Your task to perform on an android device: move an email to a new category in the gmail app Image 0: 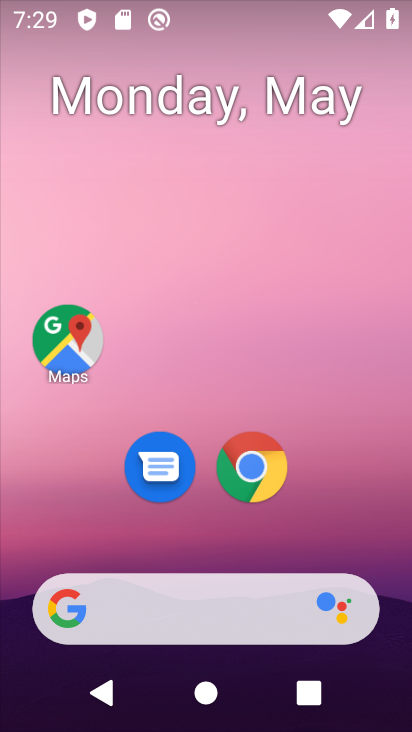
Step 0: drag from (71, 566) to (234, 37)
Your task to perform on an android device: move an email to a new category in the gmail app Image 1: 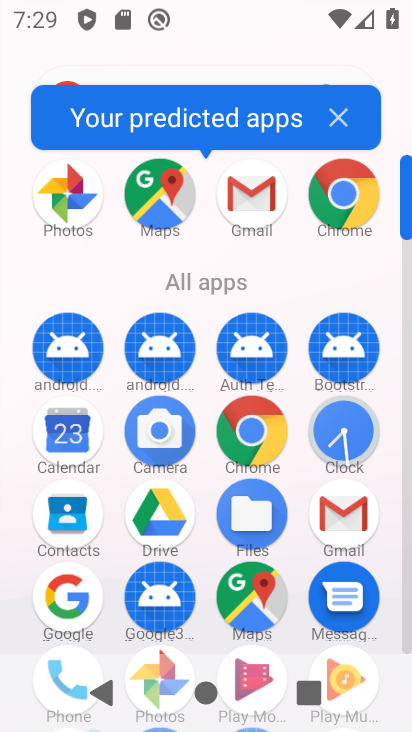
Step 1: click (339, 504)
Your task to perform on an android device: move an email to a new category in the gmail app Image 2: 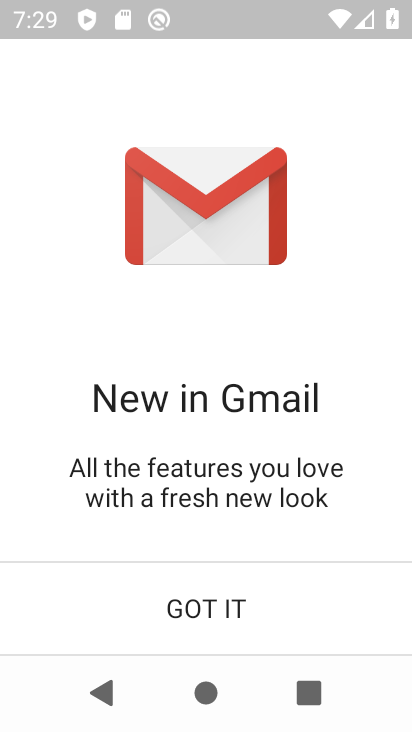
Step 2: click (257, 627)
Your task to perform on an android device: move an email to a new category in the gmail app Image 3: 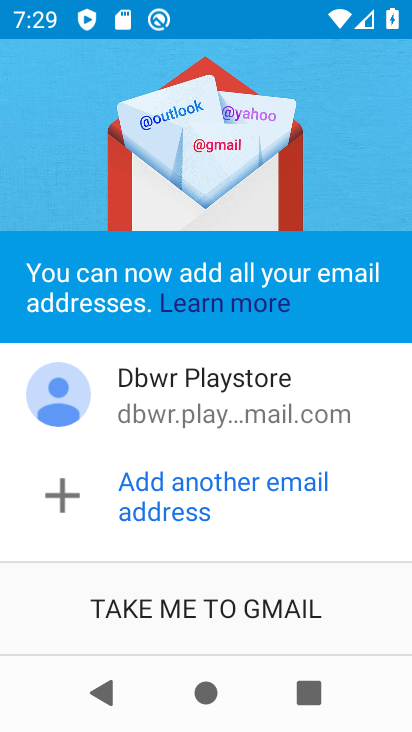
Step 3: click (257, 622)
Your task to perform on an android device: move an email to a new category in the gmail app Image 4: 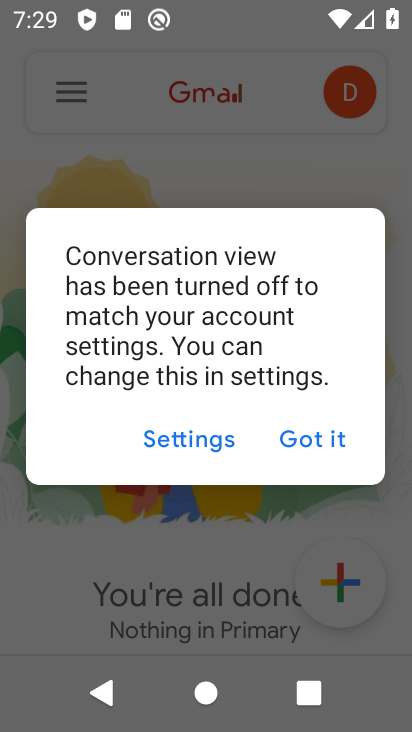
Step 4: click (307, 445)
Your task to perform on an android device: move an email to a new category in the gmail app Image 5: 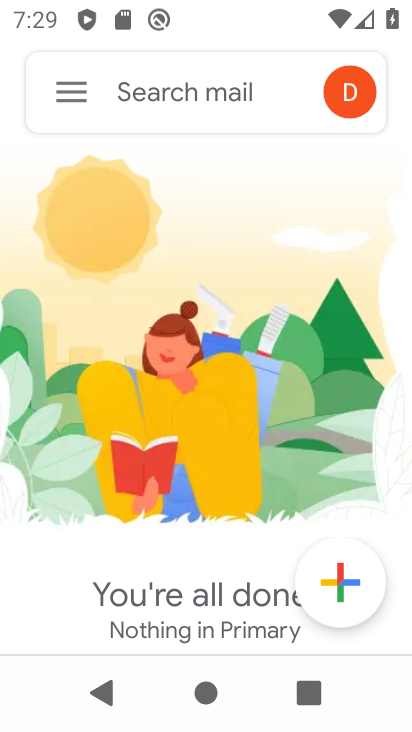
Step 5: click (92, 81)
Your task to perform on an android device: move an email to a new category in the gmail app Image 6: 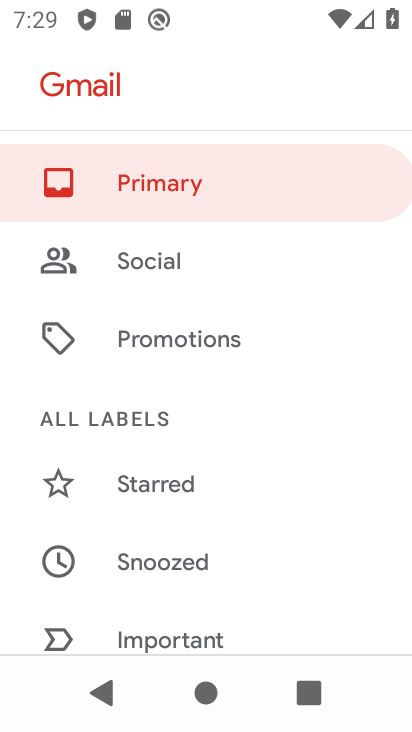
Step 6: drag from (140, 585) to (263, 176)
Your task to perform on an android device: move an email to a new category in the gmail app Image 7: 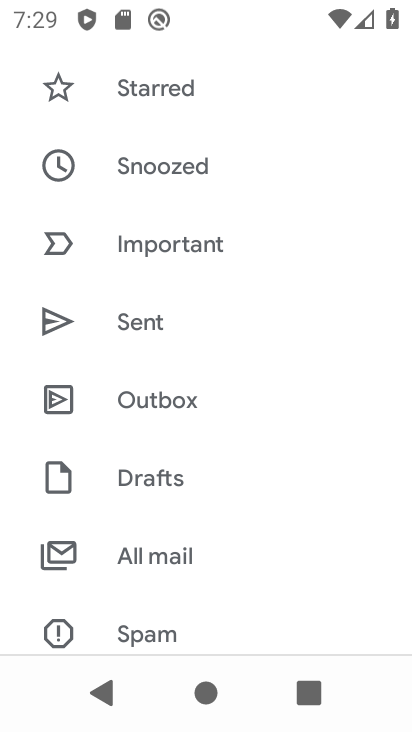
Step 7: click (174, 562)
Your task to perform on an android device: move an email to a new category in the gmail app Image 8: 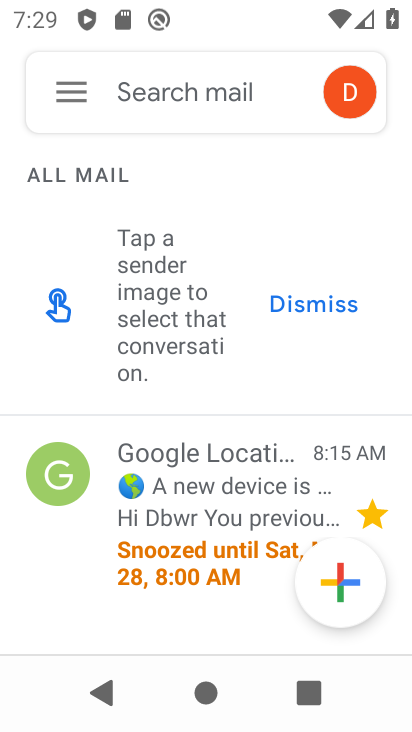
Step 8: drag from (117, 636) to (251, 278)
Your task to perform on an android device: move an email to a new category in the gmail app Image 9: 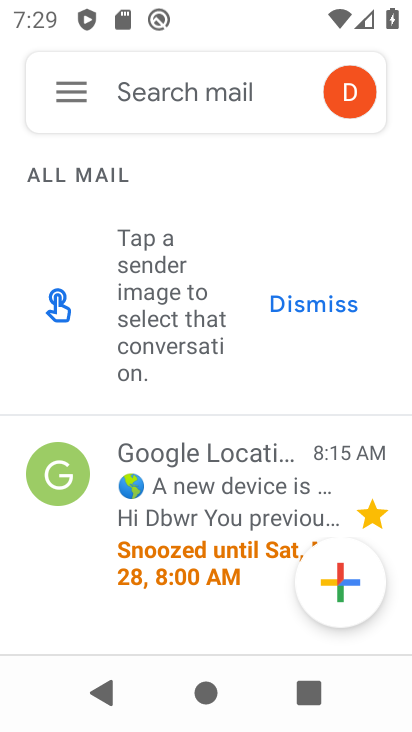
Step 9: click (231, 459)
Your task to perform on an android device: move an email to a new category in the gmail app Image 10: 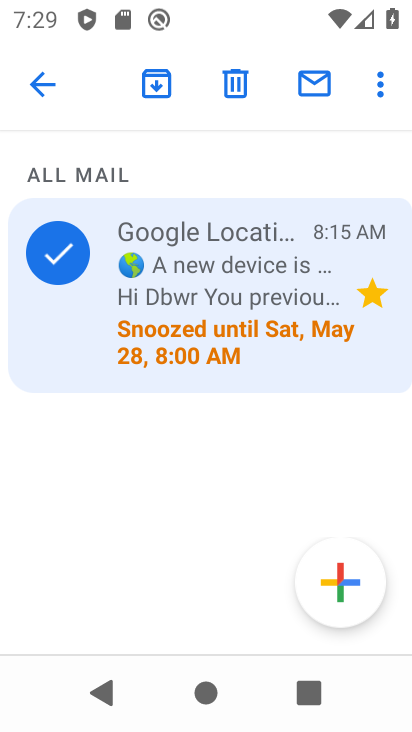
Step 10: click (384, 81)
Your task to perform on an android device: move an email to a new category in the gmail app Image 11: 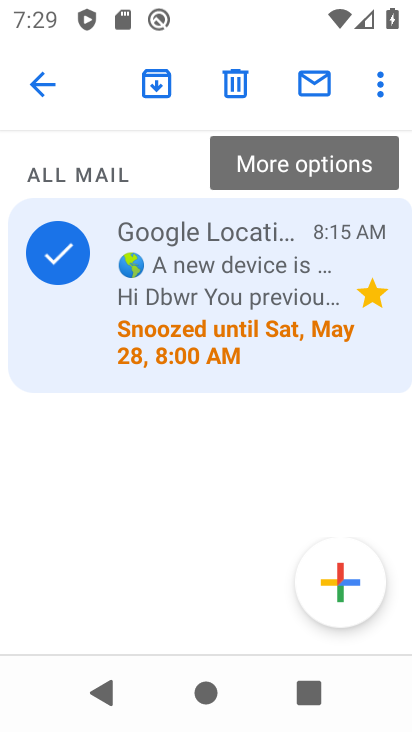
Step 11: click (376, 84)
Your task to perform on an android device: move an email to a new category in the gmail app Image 12: 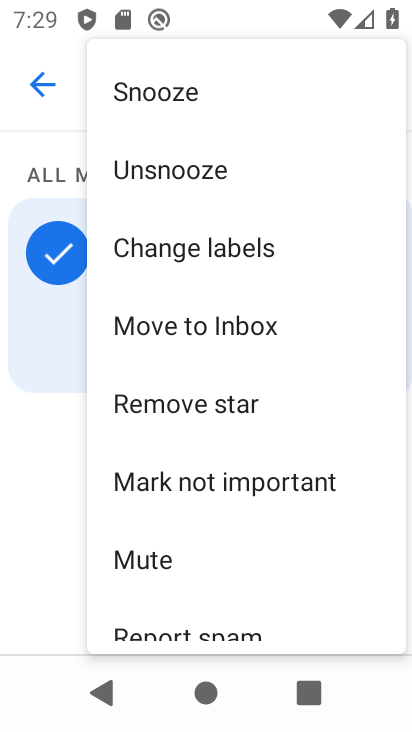
Step 12: click (327, 333)
Your task to perform on an android device: move an email to a new category in the gmail app Image 13: 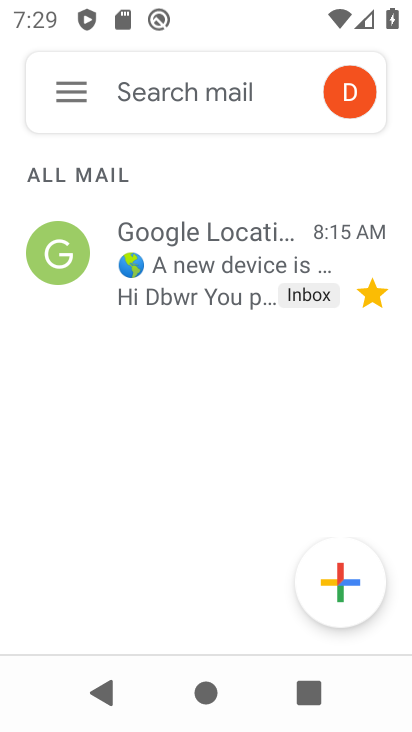
Step 13: task complete